Your task to perform on an android device: Open sound settings Image 0: 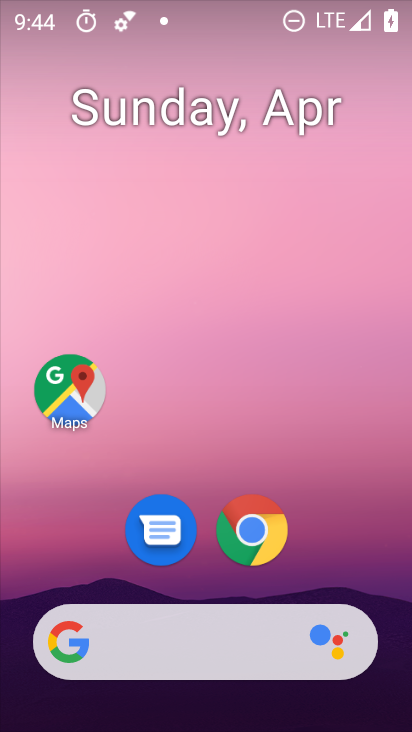
Step 0: drag from (391, 524) to (403, 9)
Your task to perform on an android device: Open sound settings Image 1: 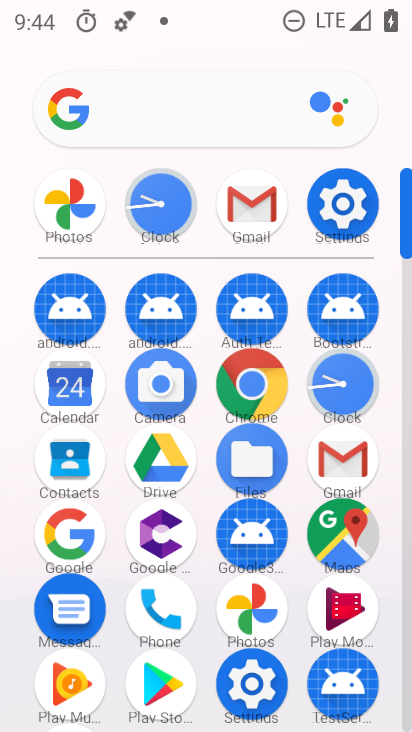
Step 1: click (339, 211)
Your task to perform on an android device: Open sound settings Image 2: 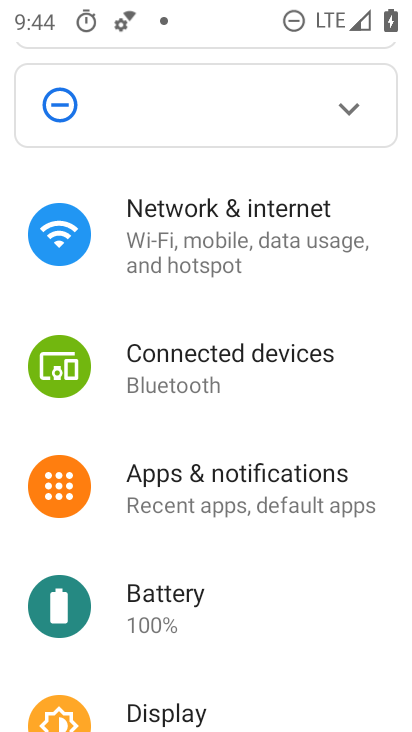
Step 2: drag from (395, 631) to (377, 393)
Your task to perform on an android device: Open sound settings Image 3: 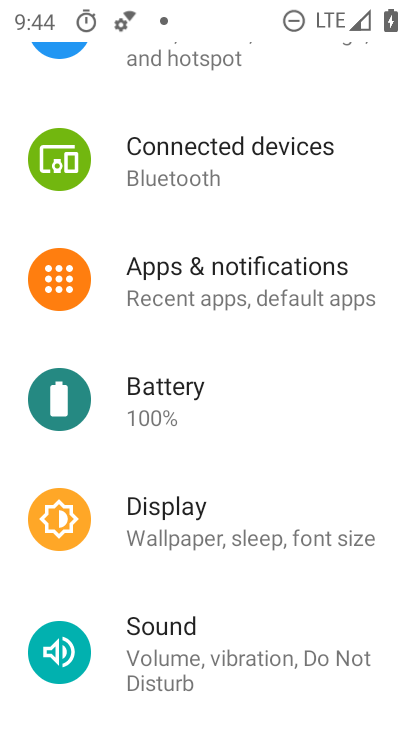
Step 3: click (158, 660)
Your task to perform on an android device: Open sound settings Image 4: 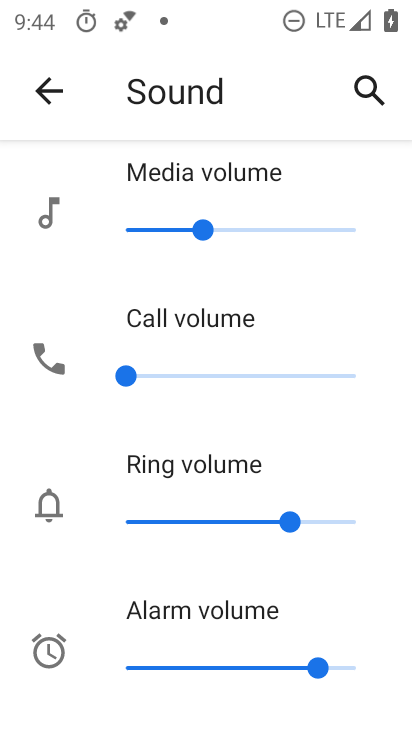
Step 4: task complete